Your task to perform on an android device: turn on wifi Image 0: 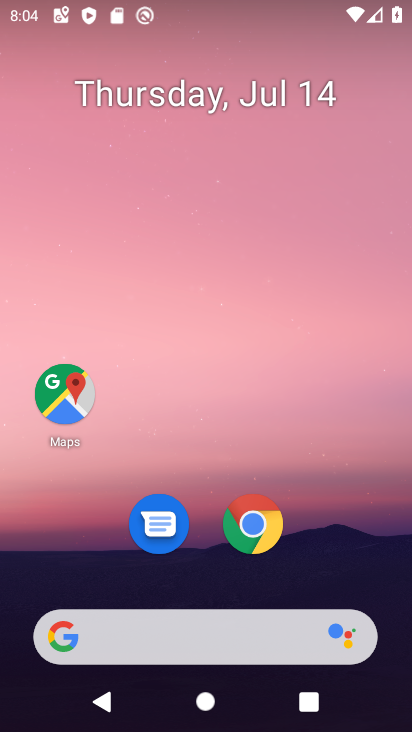
Step 0: drag from (344, 535) to (325, 26)
Your task to perform on an android device: turn on wifi Image 1: 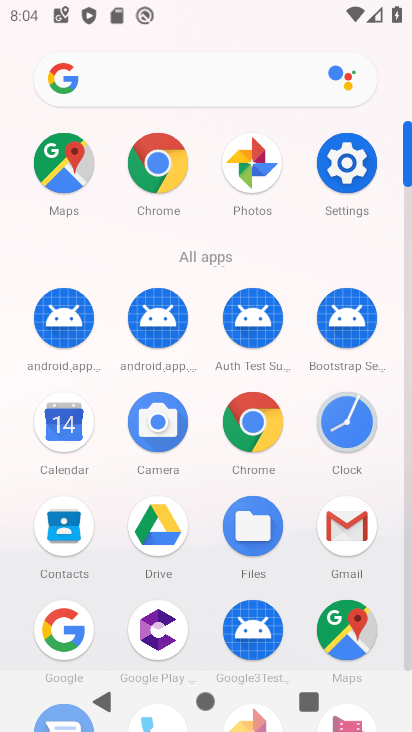
Step 1: click (341, 151)
Your task to perform on an android device: turn on wifi Image 2: 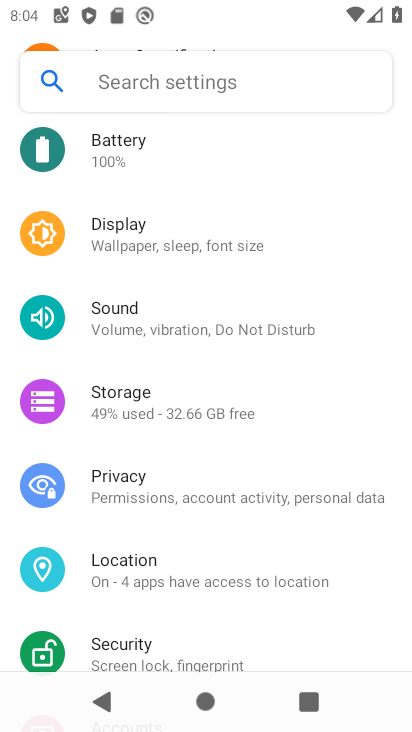
Step 2: drag from (241, 209) to (252, 586)
Your task to perform on an android device: turn on wifi Image 3: 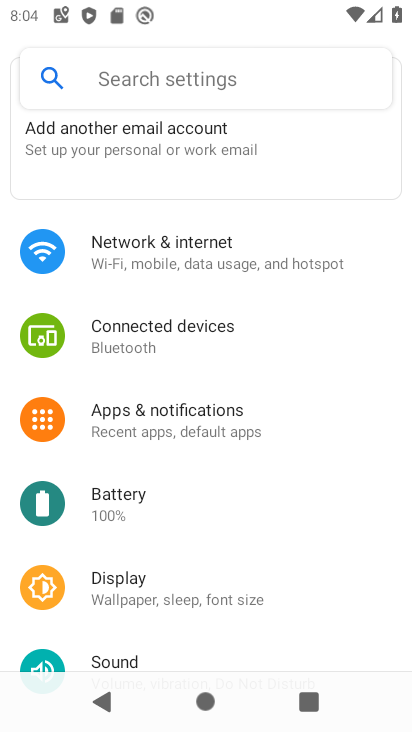
Step 3: click (218, 254)
Your task to perform on an android device: turn on wifi Image 4: 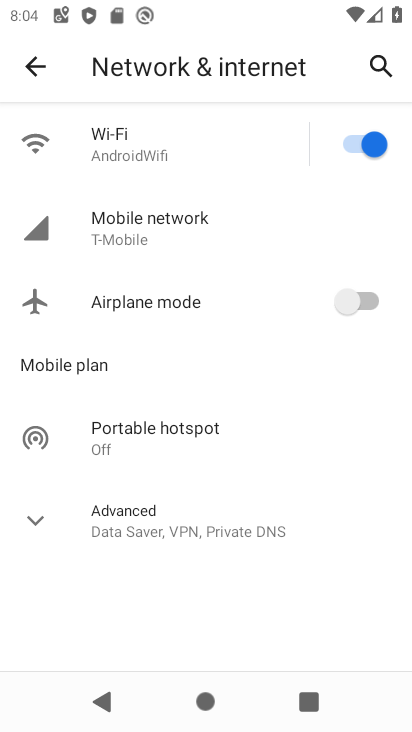
Step 4: task complete